Your task to perform on an android device: toggle airplane mode Image 0: 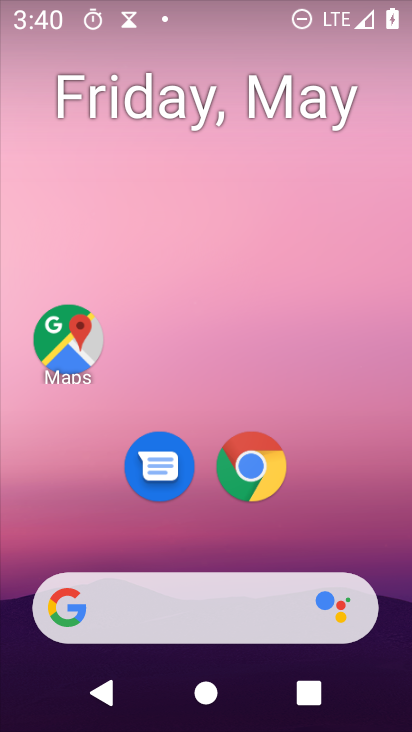
Step 0: drag from (340, 523) to (356, 106)
Your task to perform on an android device: toggle airplane mode Image 1: 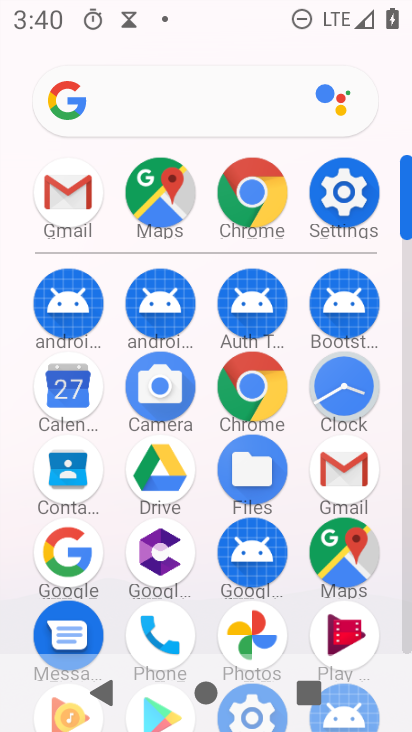
Step 1: click (344, 198)
Your task to perform on an android device: toggle airplane mode Image 2: 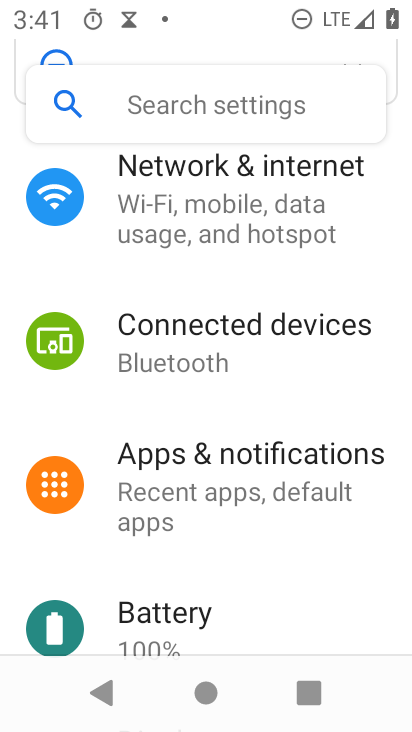
Step 2: drag from (118, 194) to (232, 632)
Your task to perform on an android device: toggle airplane mode Image 3: 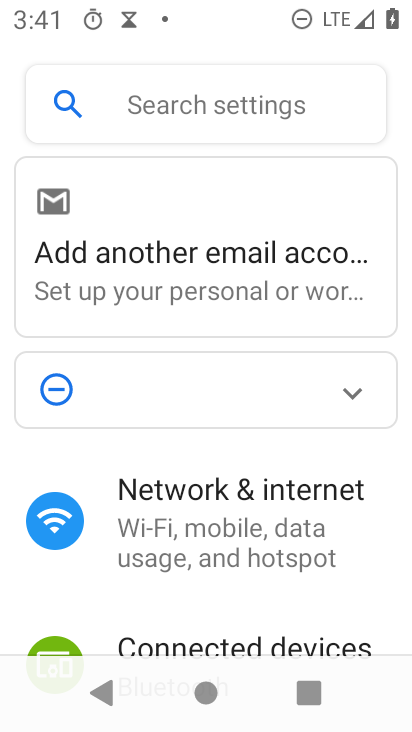
Step 3: click (232, 538)
Your task to perform on an android device: toggle airplane mode Image 4: 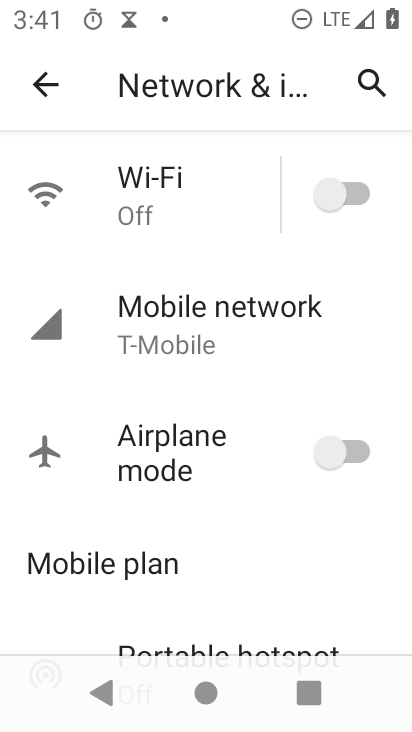
Step 4: click (168, 442)
Your task to perform on an android device: toggle airplane mode Image 5: 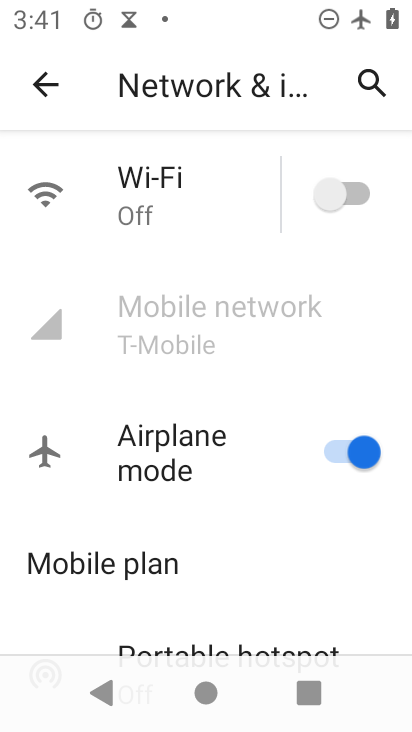
Step 5: task complete